Your task to perform on an android device: turn on priority inbox in the gmail app Image 0: 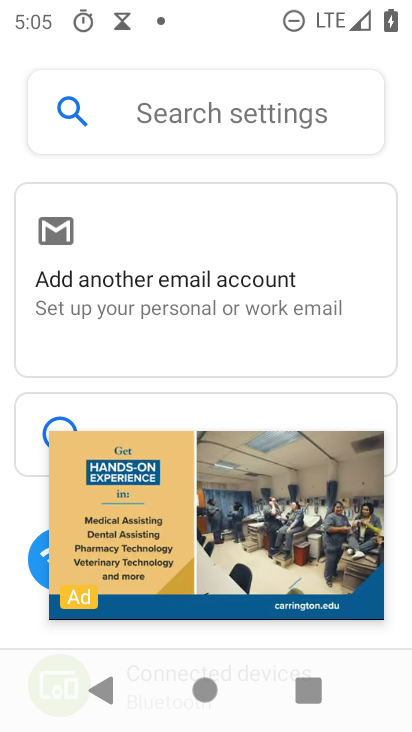
Step 0: press home button
Your task to perform on an android device: turn on priority inbox in the gmail app Image 1: 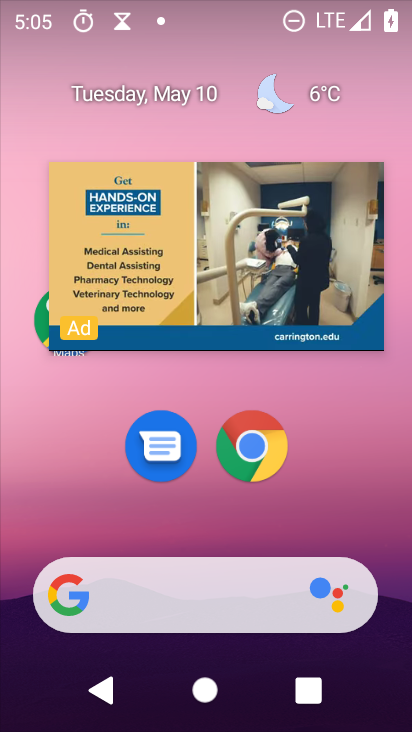
Step 1: click (349, 180)
Your task to perform on an android device: turn on priority inbox in the gmail app Image 2: 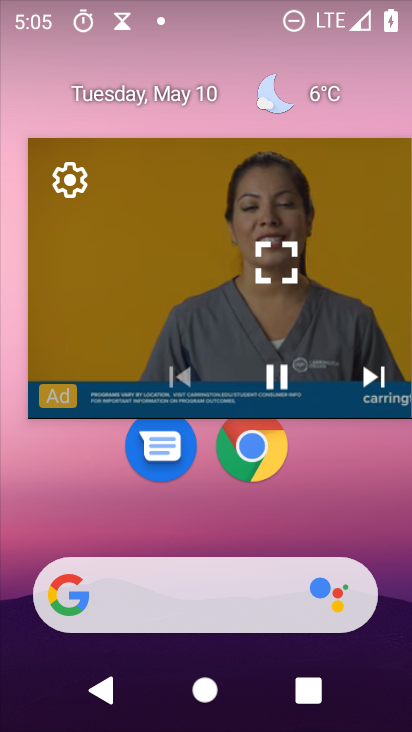
Step 2: click (357, 217)
Your task to perform on an android device: turn on priority inbox in the gmail app Image 3: 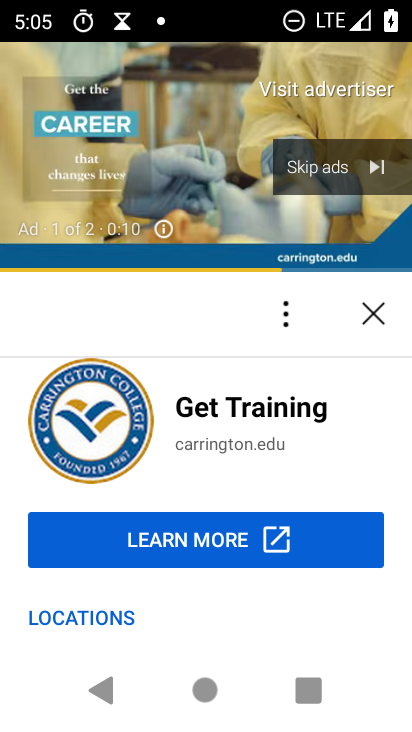
Step 3: click (348, 166)
Your task to perform on an android device: turn on priority inbox in the gmail app Image 4: 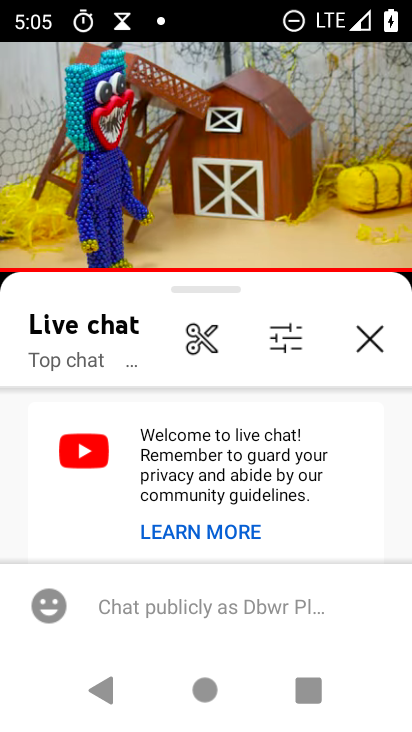
Step 4: click (370, 339)
Your task to perform on an android device: turn on priority inbox in the gmail app Image 5: 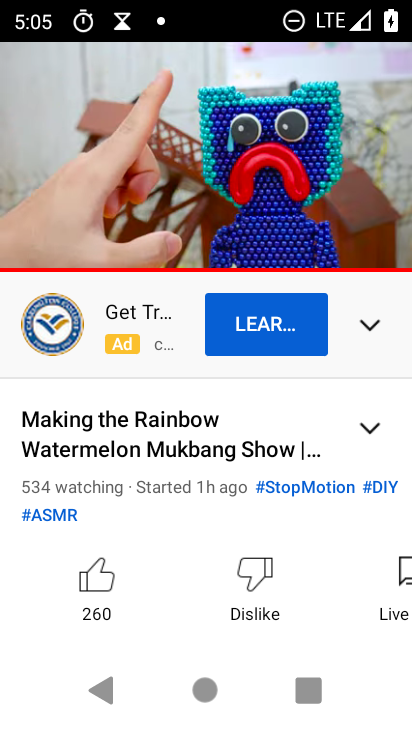
Step 5: click (238, 169)
Your task to perform on an android device: turn on priority inbox in the gmail app Image 6: 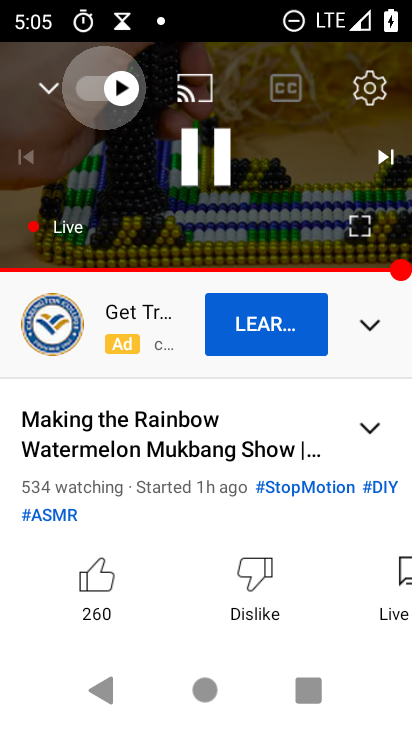
Step 6: click (219, 161)
Your task to perform on an android device: turn on priority inbox in the gmail app Image 7: 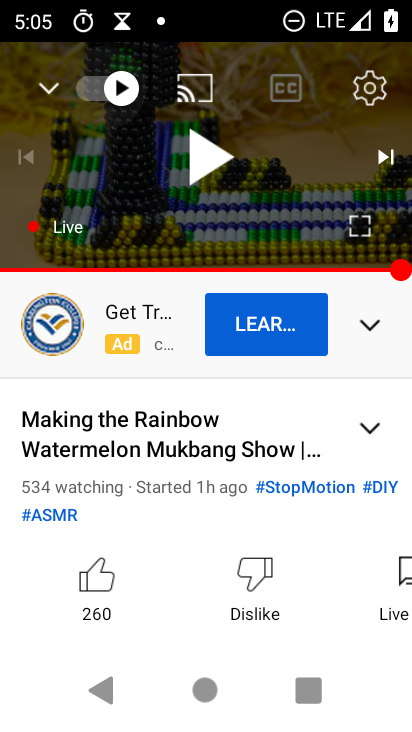
Step 7: press home button
Your task to perform on an android device: turn on priority inbox in the gmail app Image 8: 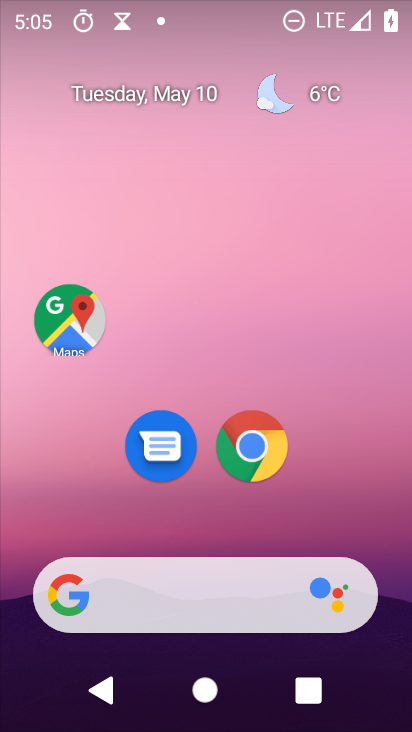
Step 8: drag from (233, 515) to (204, 53)
Your task to perform on an android device: turn on priority inbox in the gmail app Image 9: 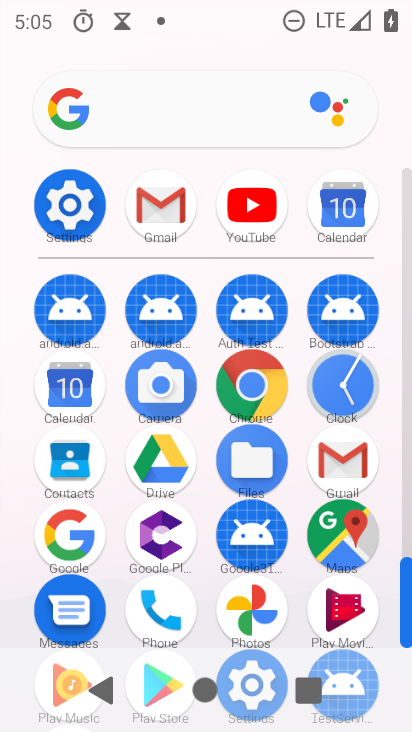
Step 9: click (333, 466)
Your task to perform on an android device: turn on priority inbox in the gmail app Image 10: 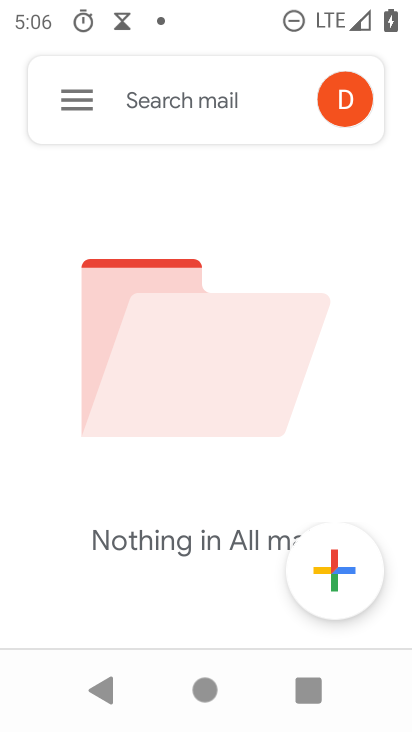
Step 10: click (71, 97)
Your task to perform on an android device: turn on priority inbox in the gmail app Image 11: 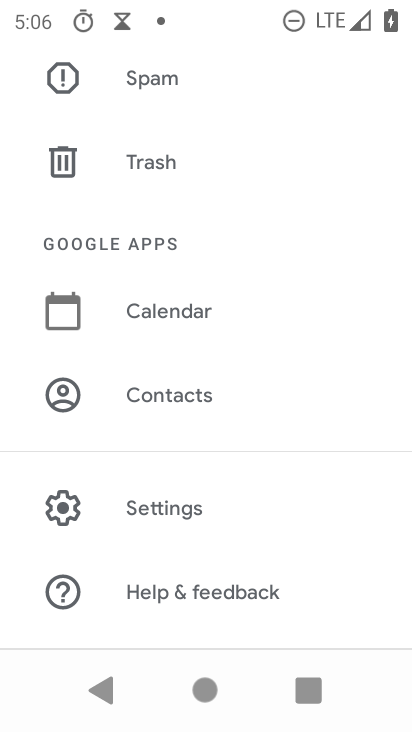
Step 11: click (188, 491)
Your task to perform on an android device: turn on priority inbox in the gmail app Image 12: 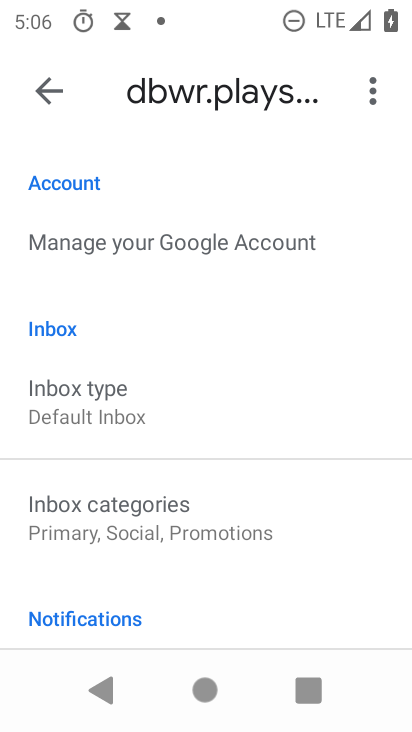
Step 12: click (115, 415)
Your task to perform on an android device: turn on priority inbox in the gmail app Image 13: 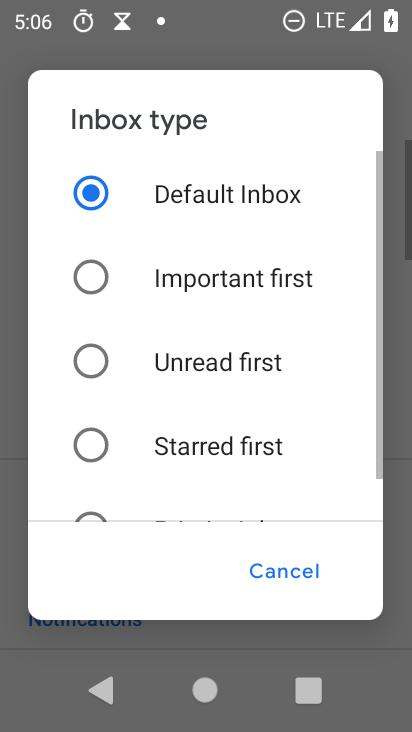
Step 13: drag from (210, 431) to (225, 179)
Your task to perform on an android device: turn on priority inbox in the gmail app Image 14: 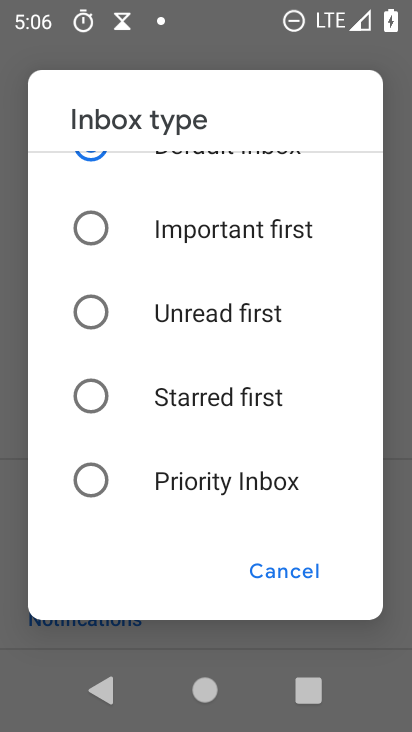
Step 14: click (175, 484)
Your task to perform on an android device: turn on priority inbox in the gmail app Image 15: 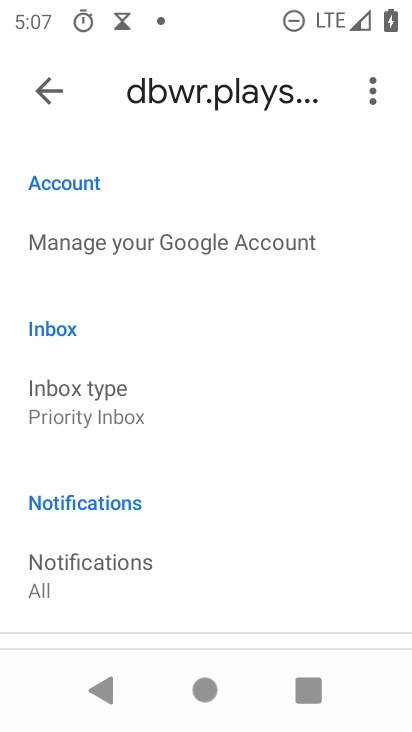
Step 15: task complete